Your task to perform on an android device: Empty the shopping cart on amazon.com. Add razer blackwidow to the cart on amazon.com Image 0: 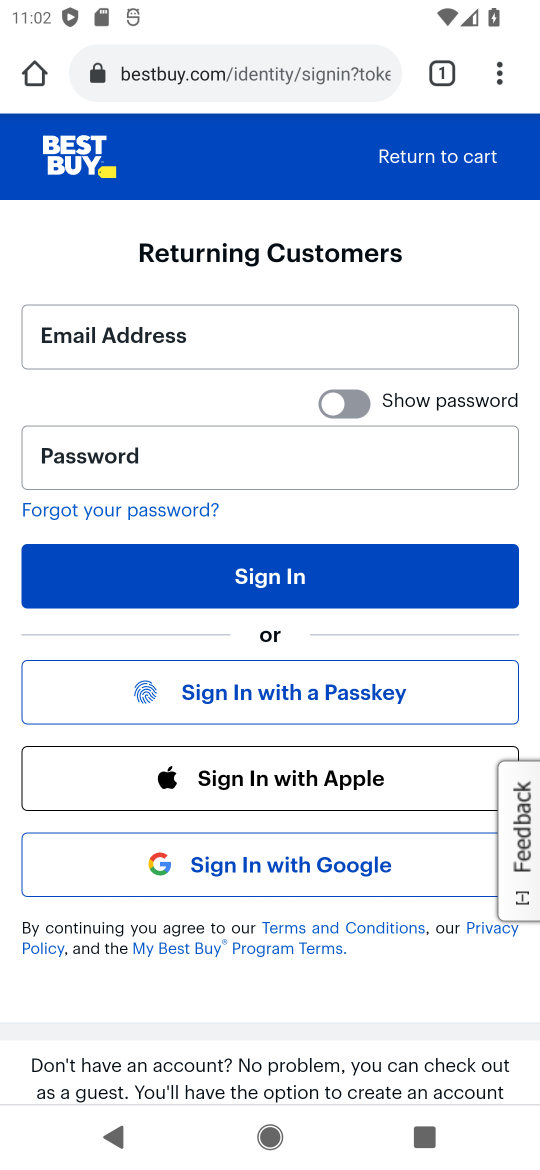
Step 0: click (246, 73)
Your task to perform on an android device: Empty the shopping cart on amazon.com. Add razer blackwidow to the cart on amazon.com Image 1: 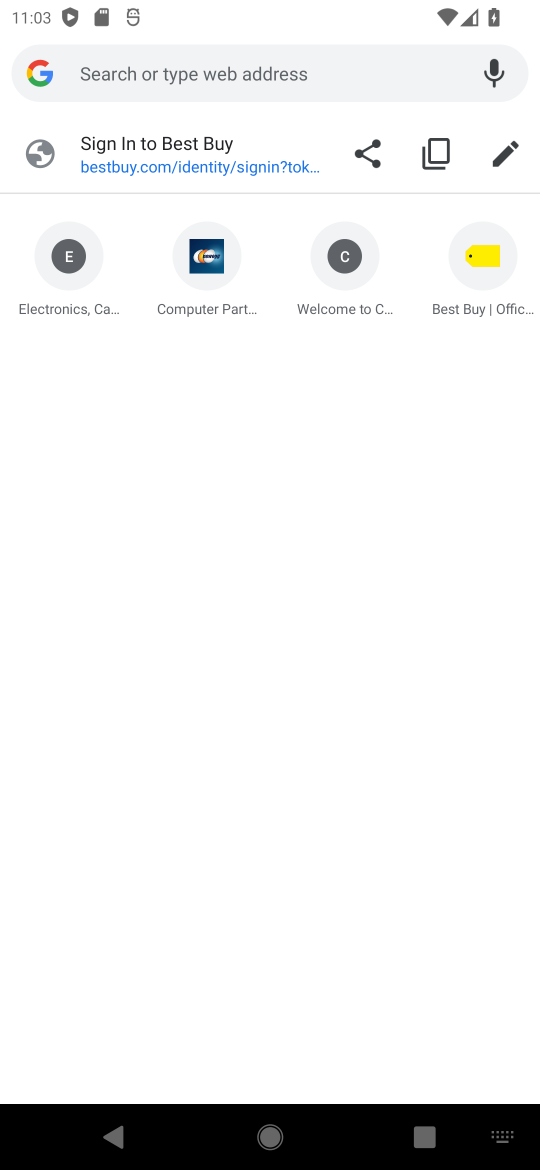
Step 1: type "amazon.com"
Your task to perform on an android device: Empty the shopping cart on amazon.com. Add razer blackwidow to the cart on amazon.com Image 2: 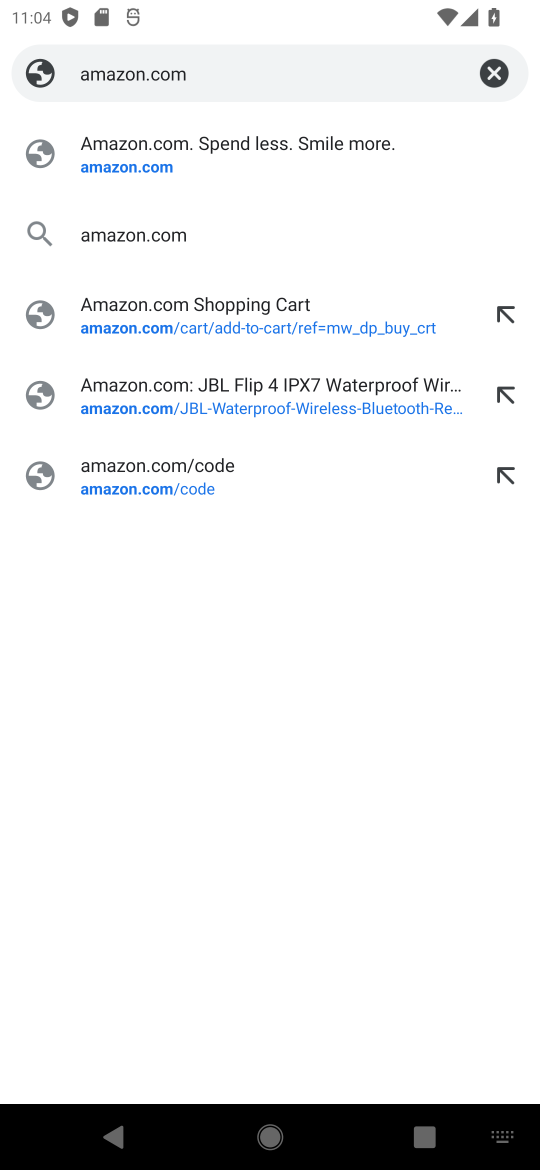
Step 2: click (106, 175)
Your task to perform on an android device: Empty the shopping cart on amazon.com. Add razer blackwidow to the cart on amazon.com Image 3: 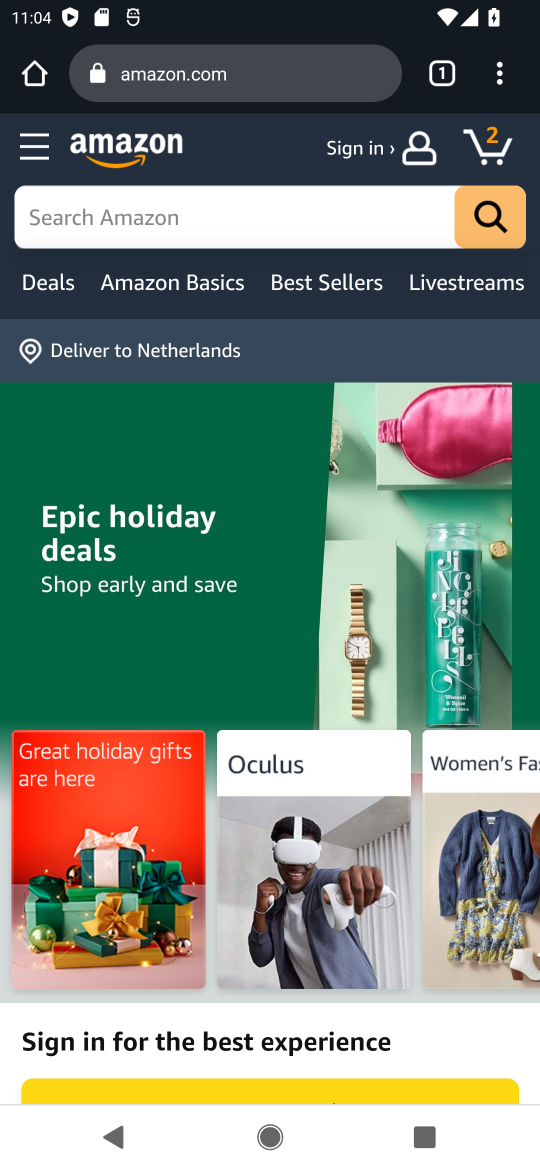
Step 3: click (487, 150)
Your task to perform on an android device: Empty the shopping cart on amazon.com. Add razer blackwidow to the cart on amazon.com Image 4: 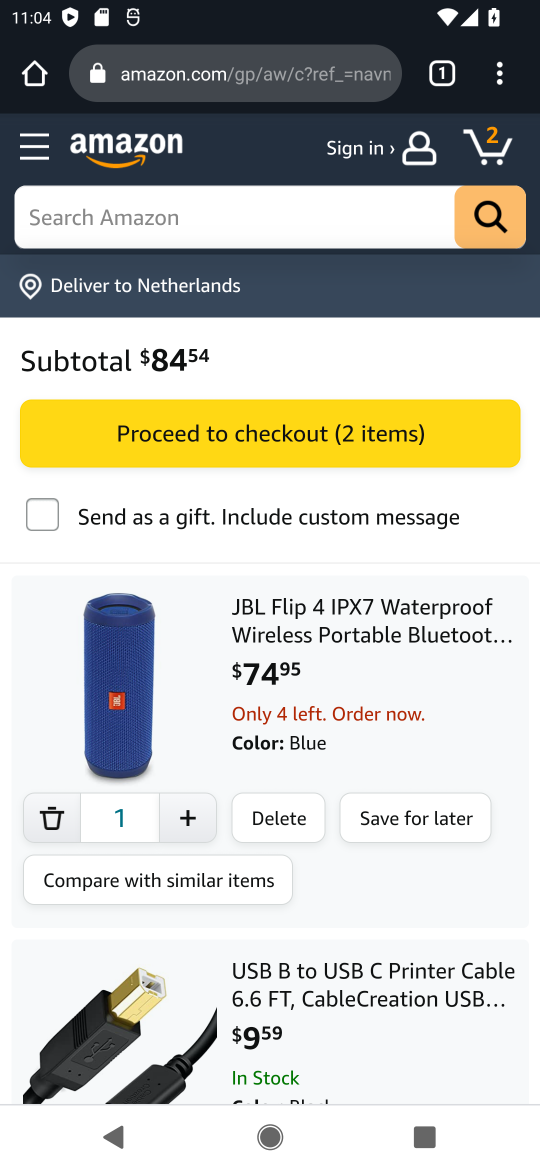
Step 4: click (288, 820)
Your task to perform on an android device: Empty the shopping cart on amazon.com. Add razer blackwidow to the cart on amazon.com Image 5: 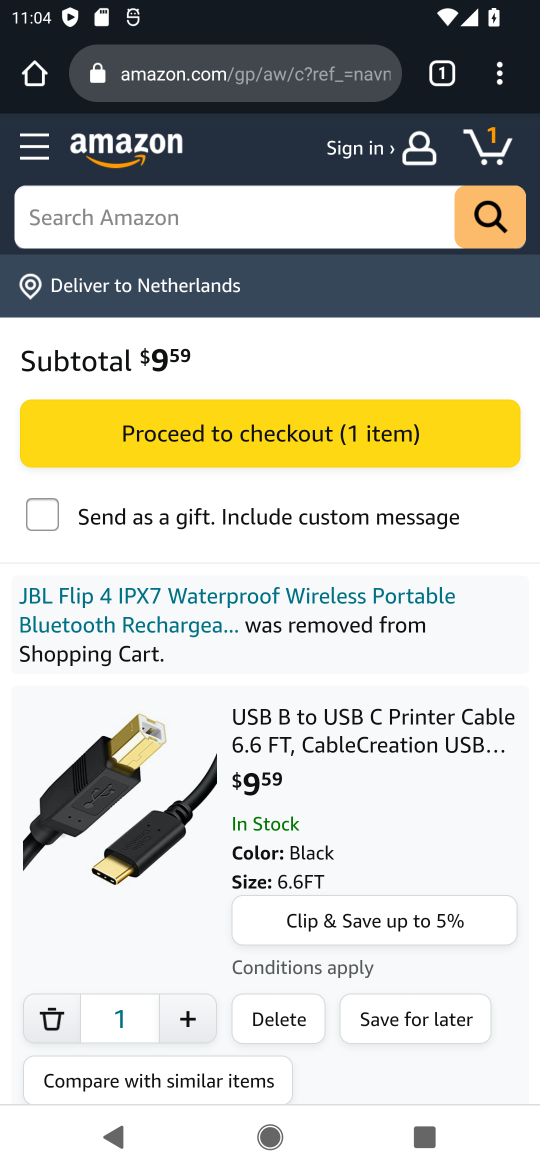
Step 5: click (268, 1019)
Your task to perform on an android device: Empty the shopping cart on amazon.com. Add razer blackwidow to the cart on amazon.com Image 6: 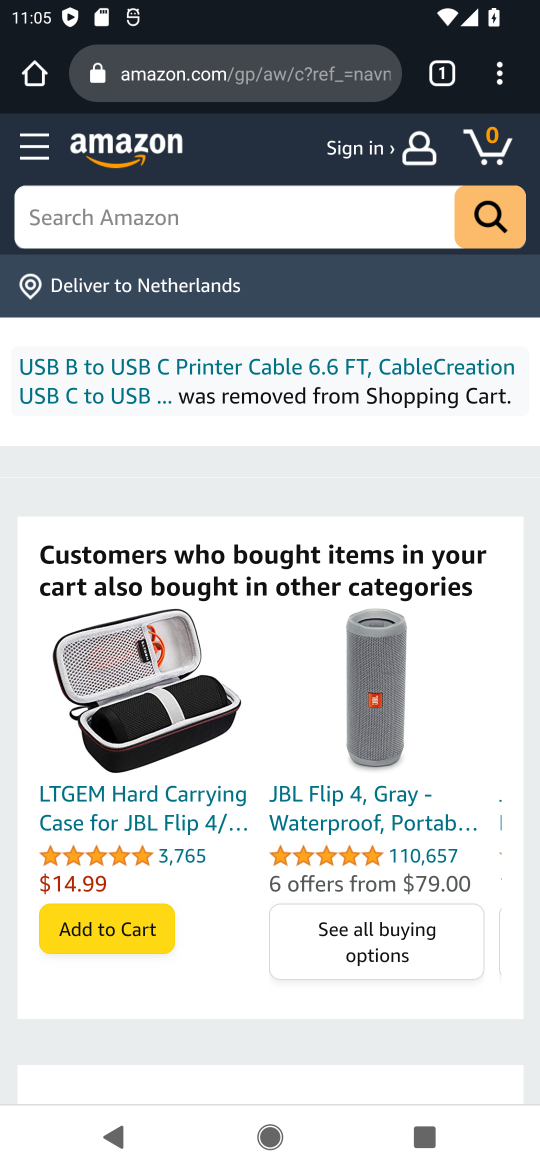
Step 6: click (187, 215)
Your task to perform on an android device: Empty the shopping cart on amazon.com. Add razer blackwidow to the cart on amazon.com Image 7: 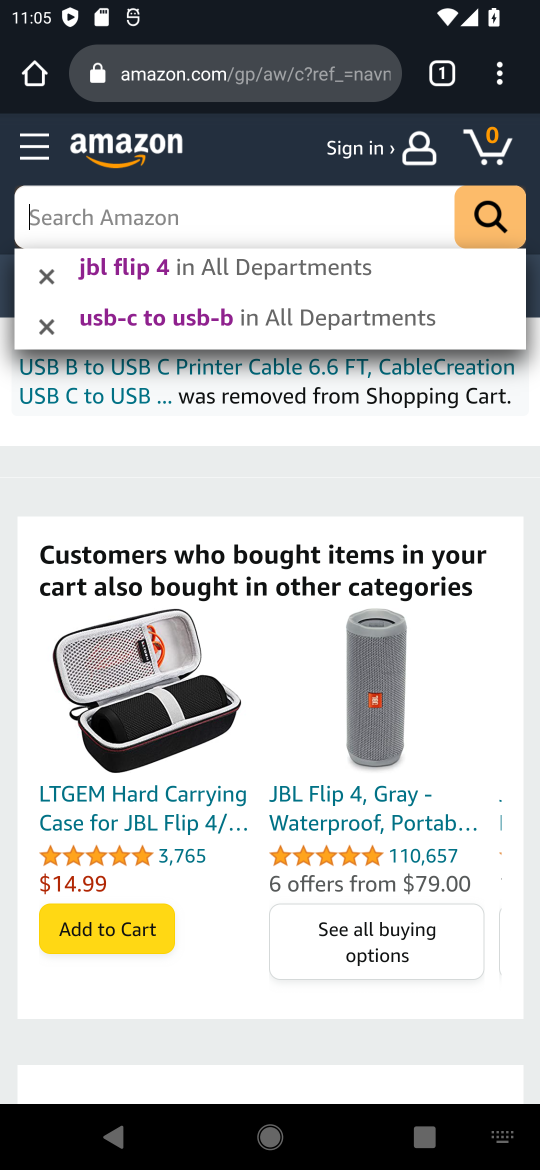
Step 7: type " razer blackwidow"
Your task to perform on an android device: Empty the shopping cart on amazon.com. Add razer blackwidow to the cart on amazon.com Image 8: 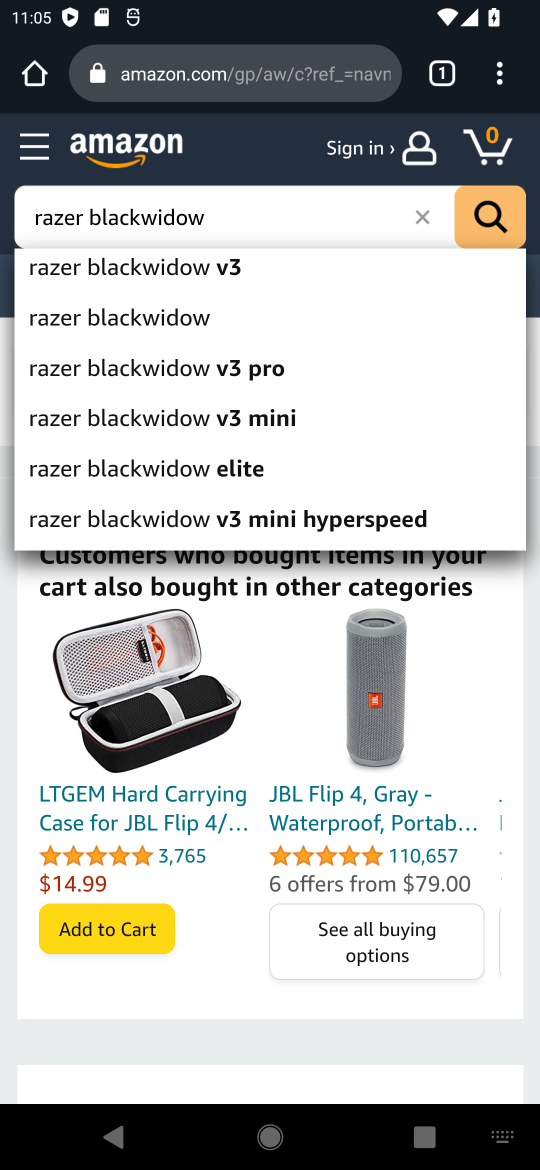
Step 8: click (188, 310)
Your task to perform on an android device: Empty the shopping cart on amazon.com. Add razer blackwidow to the cart on amazon.com Image 9: 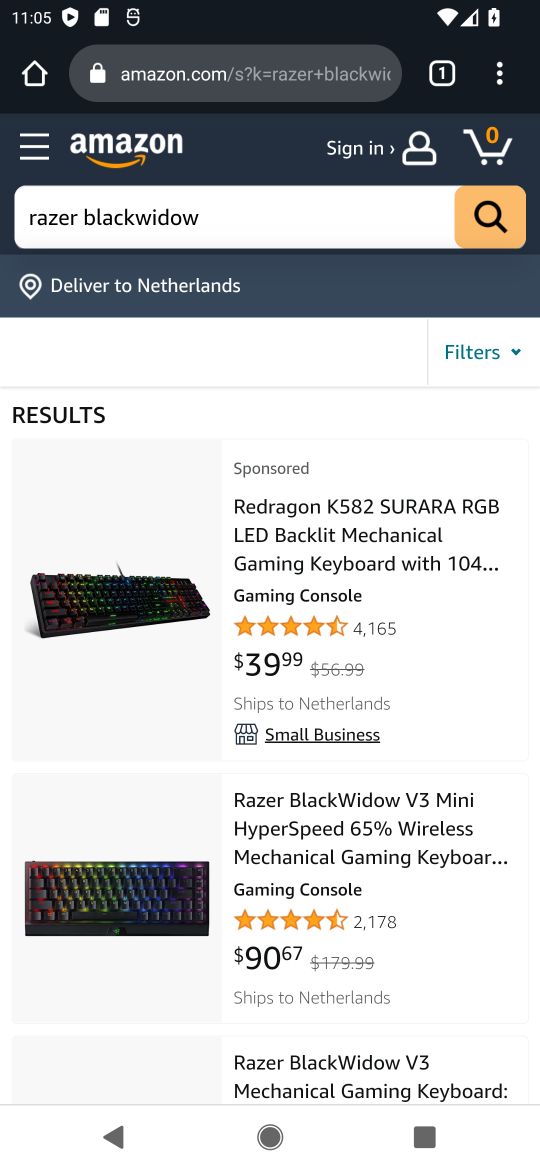
Step 9: click (301, 878)
Your task to perform on an android device: Empty the shopping cart on amazon.com. Add razer blackwidow to the cart on amazon.com Image 10: 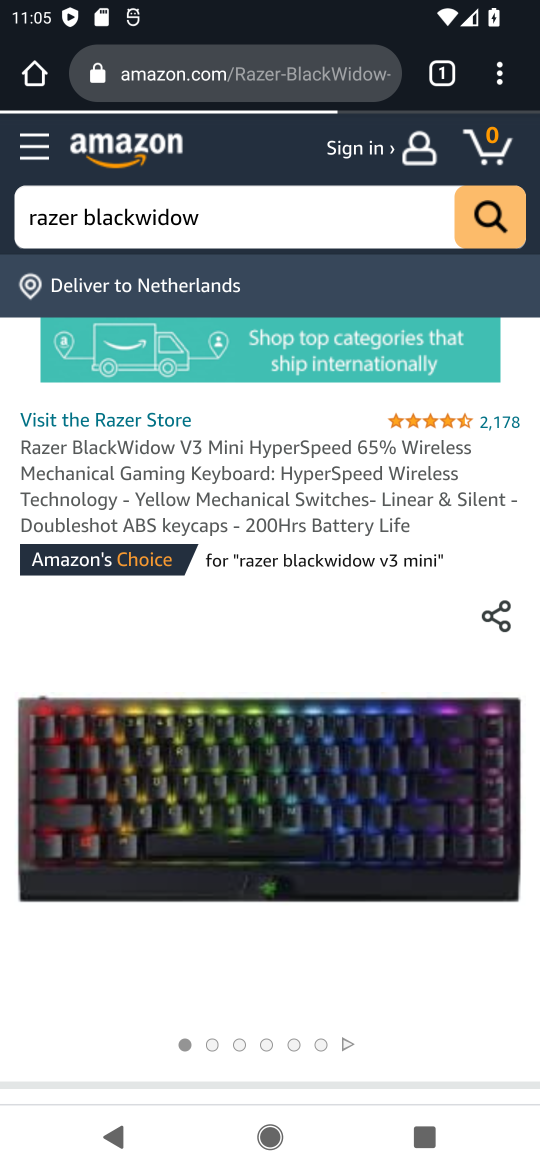
Step 10: drag from (301, 878) to (311, 623)
Your task to perform on an android device: Empty the shopping cart on amazon.com. Add razer blackwidow to the cart on amazon.com Image 11: 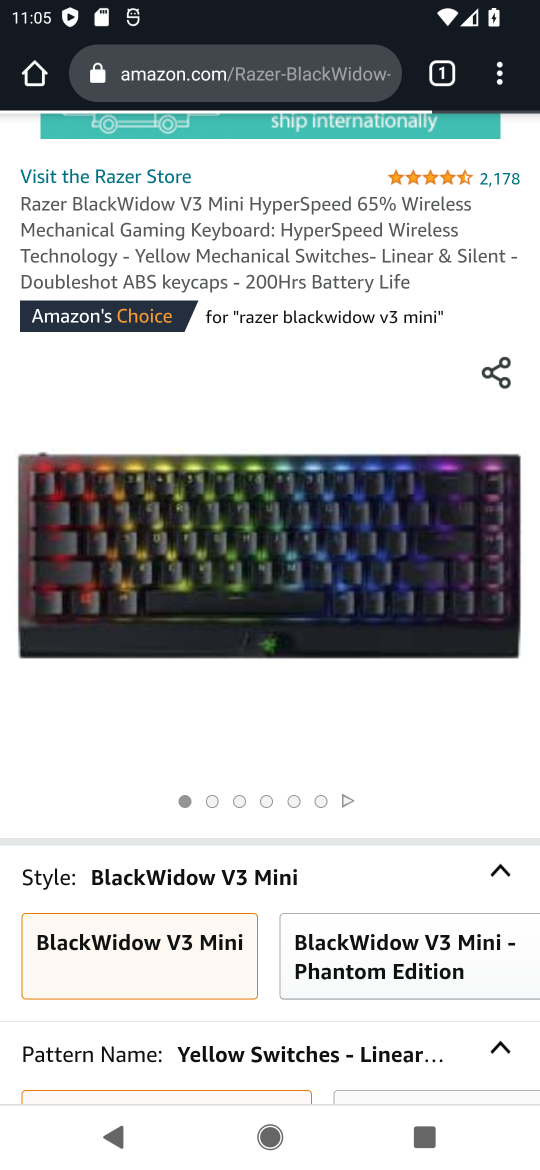
Step 11: drag from (284, 825) to (284, 343)
Your task to perform on an android device: Empty the shopping cart on amazon.com. Add razer blackwidow to the cart on amazon.com Image 12: 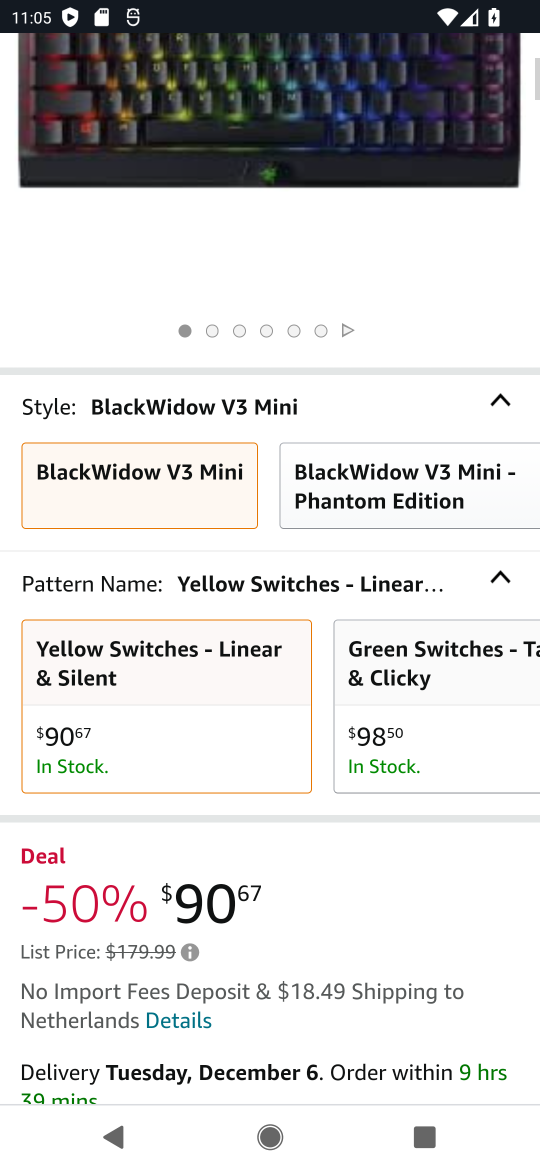
Step 12: drag from (263, 527) to (265, 356)
Your task to perform on an android device: Empty the shopping cart on amazon.com. Add razer blackwidow to the cart on amazon.com Image 13: 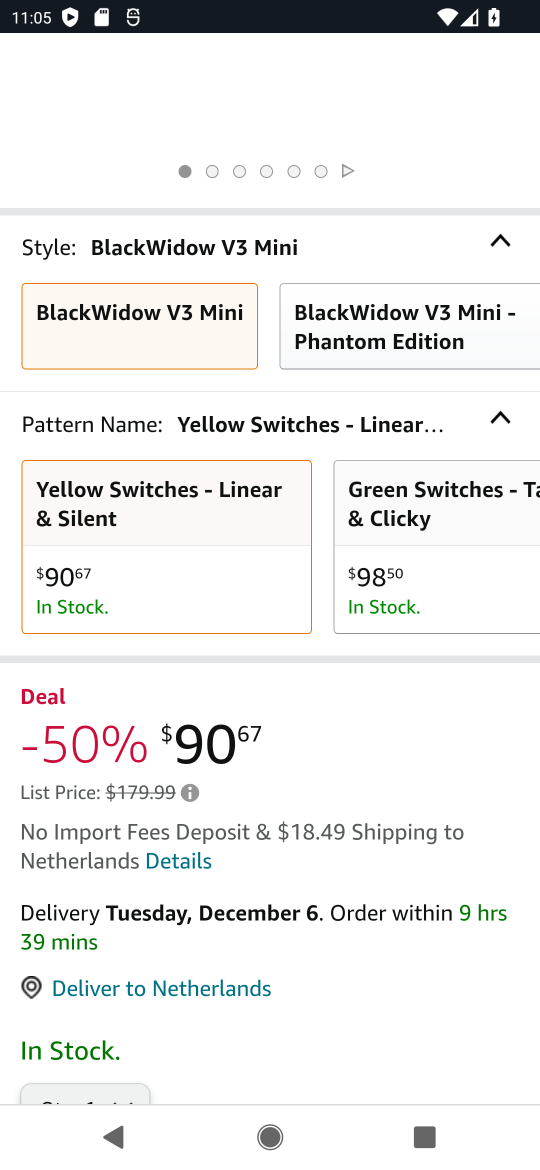
Step 13: drag from (277, 857) to (280, 272)
Your task to perform on an android device: Empty the shopping cart on amazon.com. Add razer blackwidow to the cart on amazon.com Image 14: 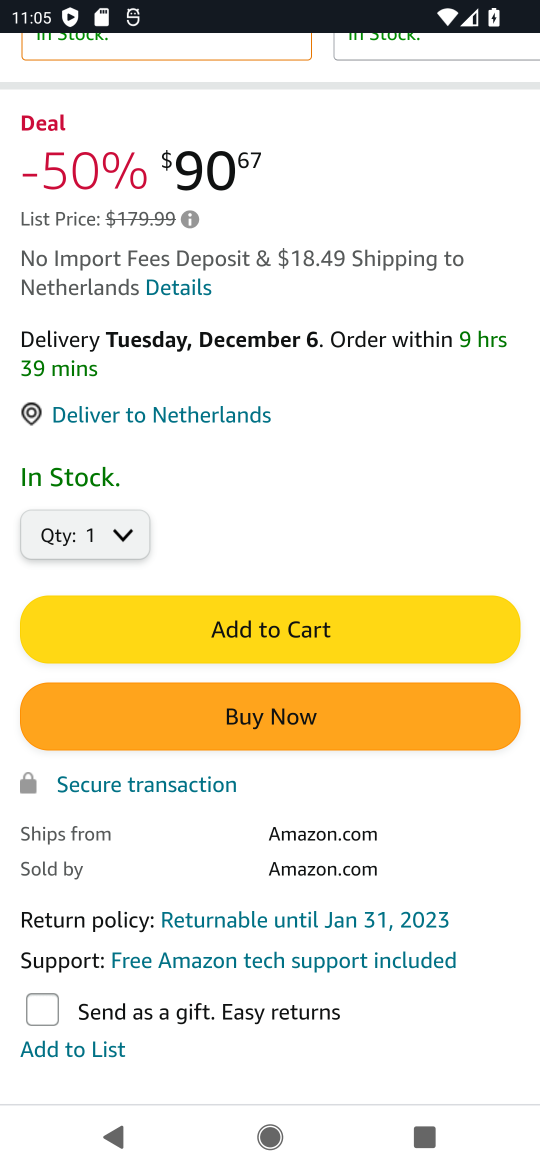
Step 14: click (268, 626)
Your task to perform on an android device: Empty the shopping cart on amazon.com. Add razer blackwidow to the cart on amazon.com Image 15: 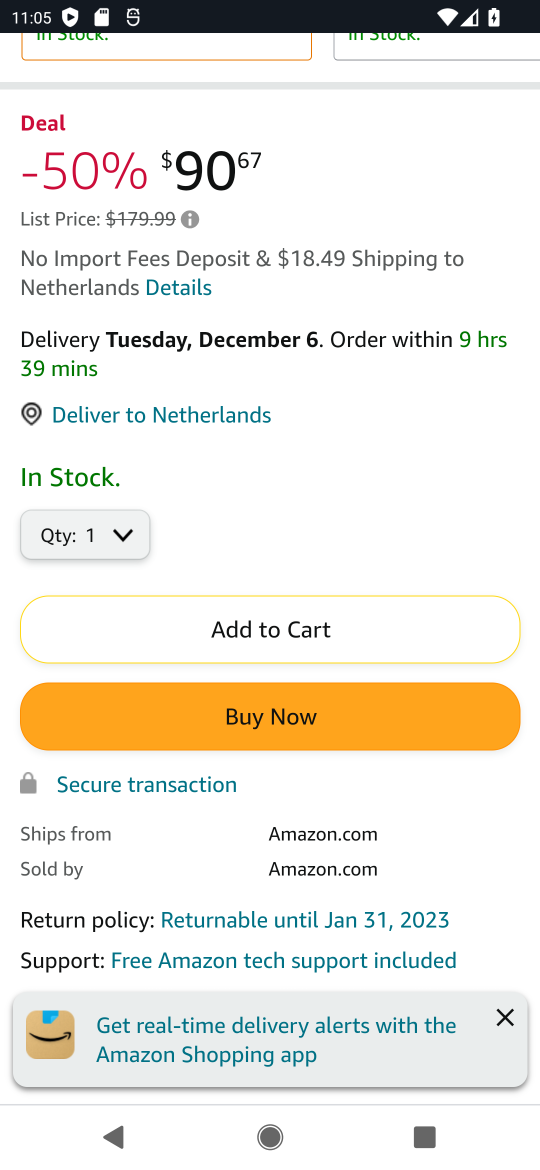
Step 15: task complete